Your task to perform on an android device: Clear the shopping cart on ebay.com. Add "lenovo thinkpad" to the cart on ebay.com Image 0: 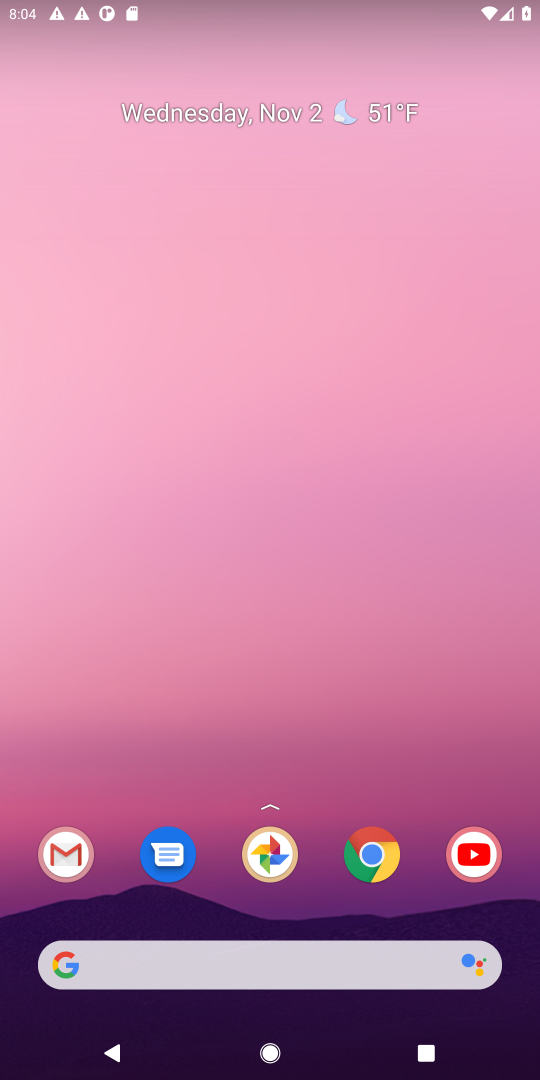
Step 0: click (365, 857)
Your task to perform on an android device: Clear the shopping cart on ebay.com. Add "lenovo thinkpad" to the cart on ebay.com Image 1: 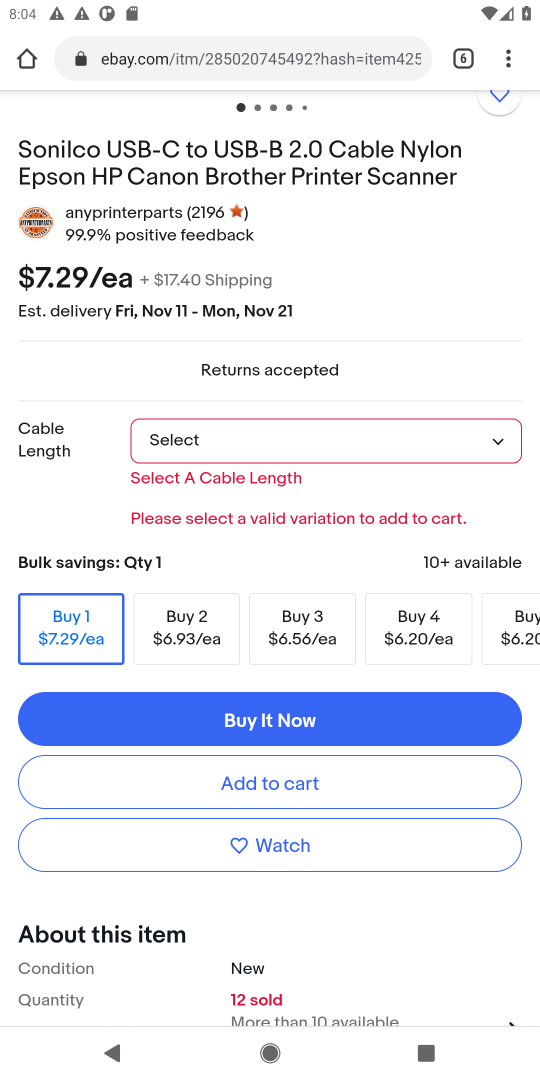
Step 1: drag from (442, 179) to (367, 671)
Your task to perform on an android device: Clear the shopping cart on ebay.com. Add "lenovo thinkpad" to the cart on ebay.com Image 2: 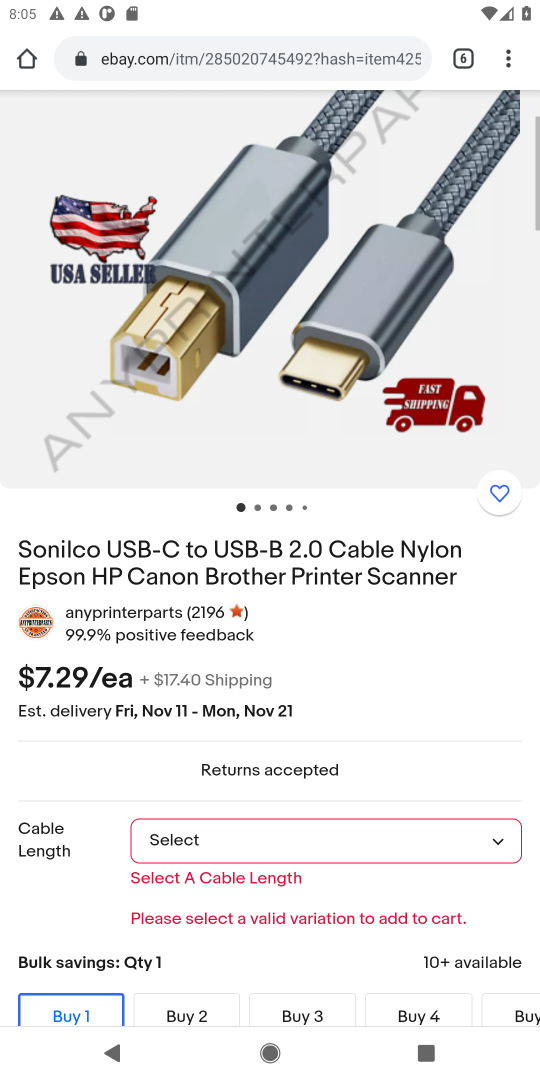
Step 2: drag from (375, 188) to (97, 1053)
Your task to perform on an android device: Clear the shopping cart on ebay.com. Add "lenovo thinkpad" to the cart on ebay.com Image 3: 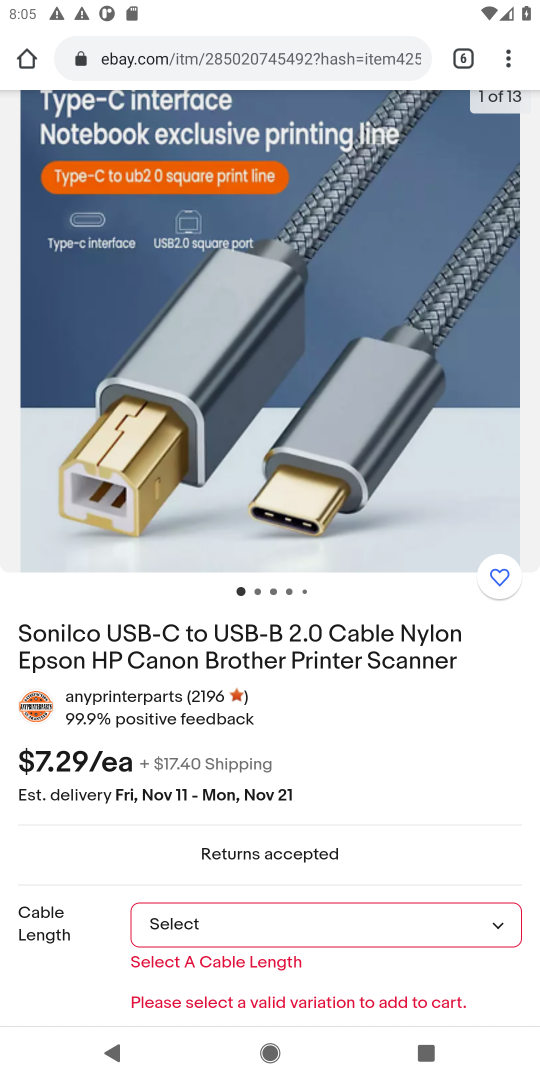
Step 3: drag from (159, 416) to (120, 882)
Your task to perform on an android device: Clear the shopping cart on ebay.com. Add "lenovo thinkpad" to the cart on ebay.com Image 4: 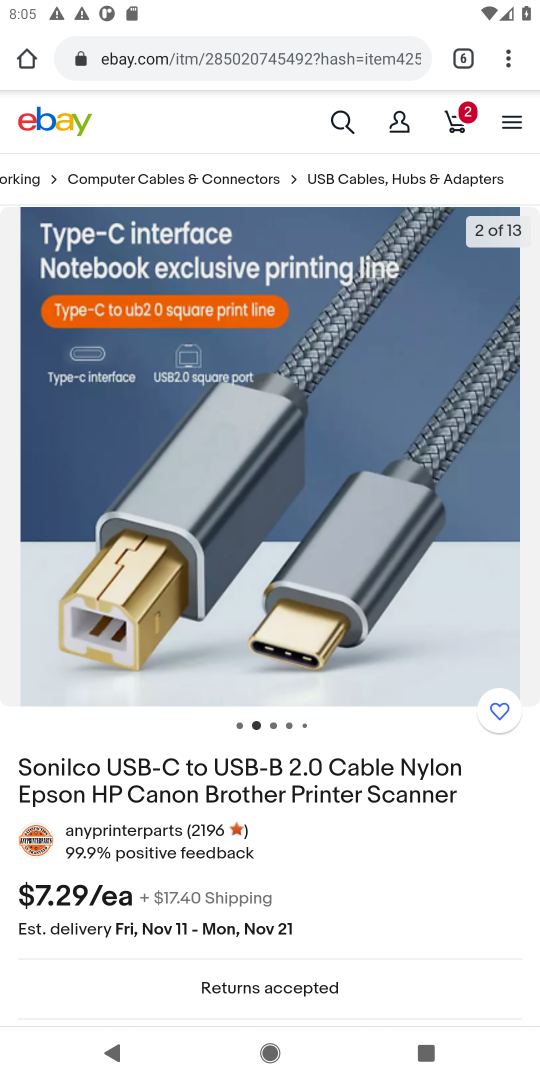
Step 4: click (339, 122)
Your task to perform on an android device: Clear the shopping cart on ebay.com. Add "lenovo thinkpad" to the cart on ebay.com Image 5: 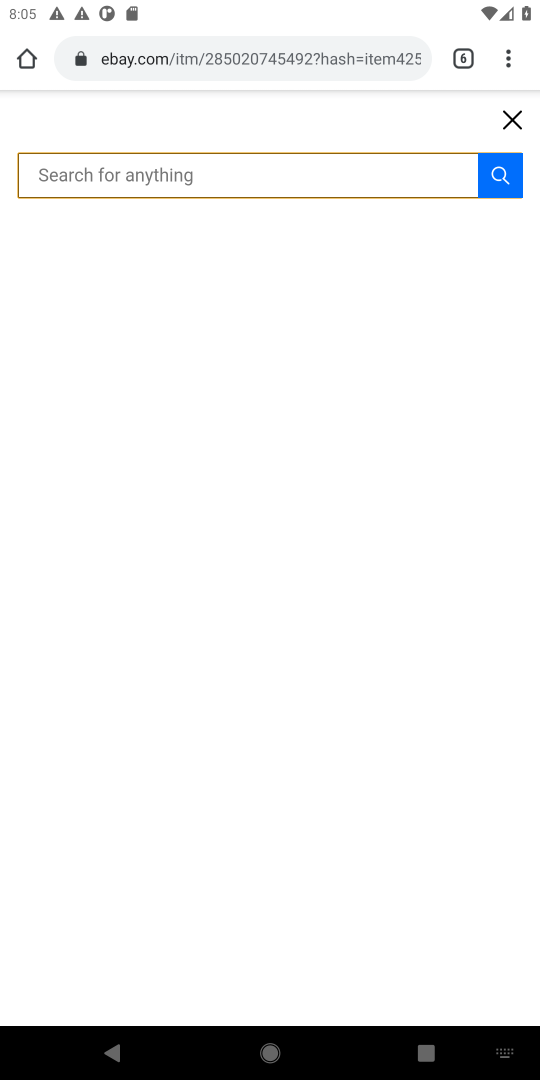
Step 5: type "lenovo thinkpad"
Your task to perform on an android device: Clear the shopping cart on ebay.com. Add "lenovo thinkpad" to the cart on ebay.com Image 6: 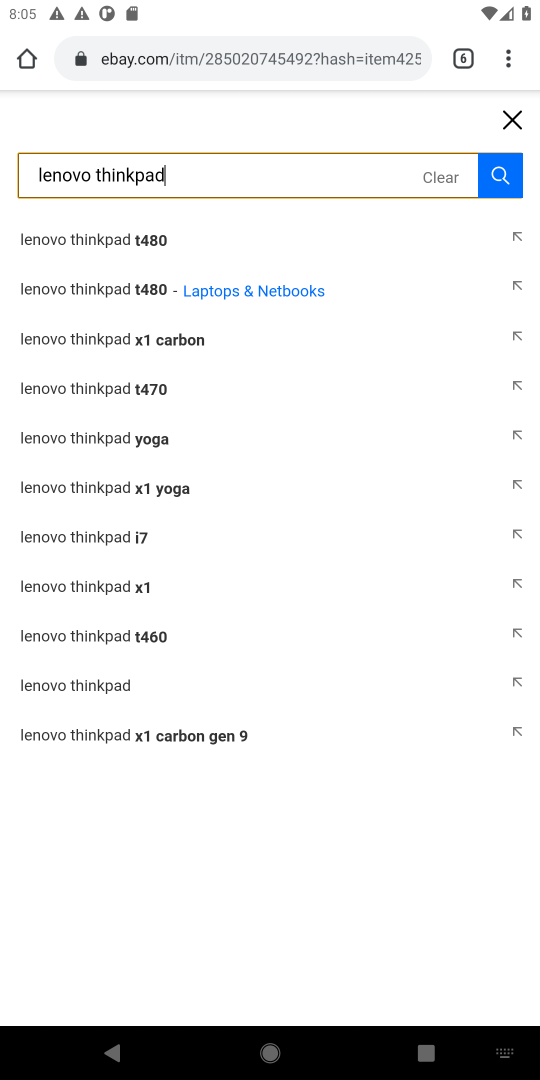
Step 6: click (143, 288)
Your task to perform on an android device: Clear the shopping cart on ebay.com. Add "lenovo thinkpad" to the cart on ebay.com Image 7: 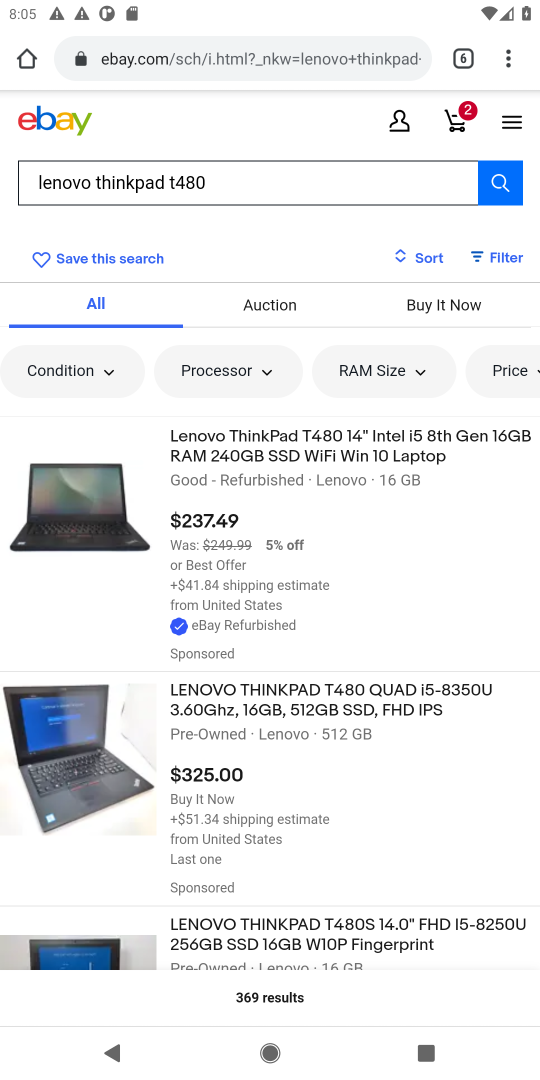
Step 7: click (335, 428)
Your task to perform on an android device: Clear the shopping cart on ebay.com. Add "lenovo thinkpad" to the cart on ebay.com Image 8: 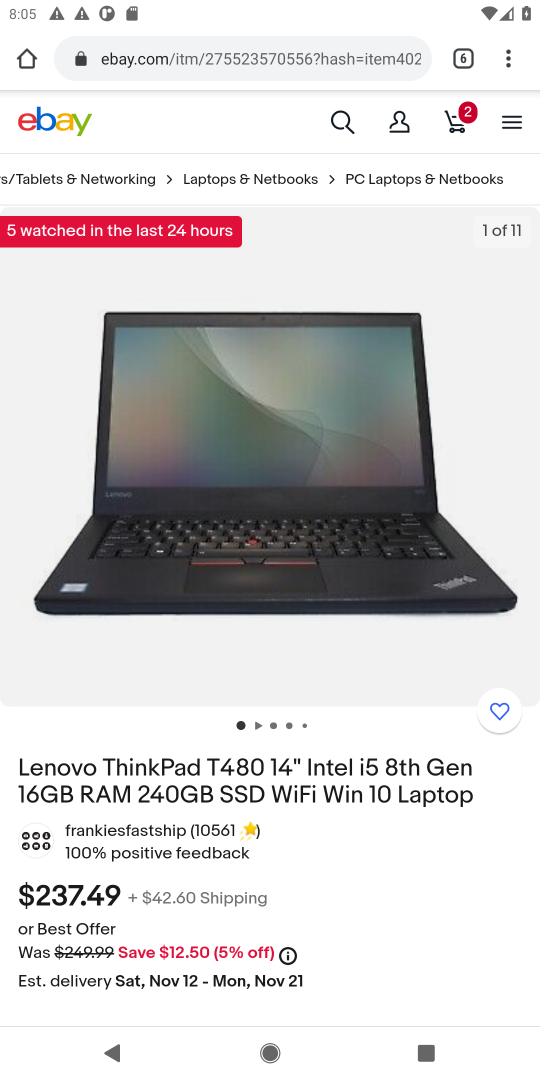
Step 8: drag from (350, 884) to (408, 284)
Your task to perform on an android device: Clear the shopping cart on ebay.com. Add "lenovo thinkpad" to the cart on ebay.com Image 9: 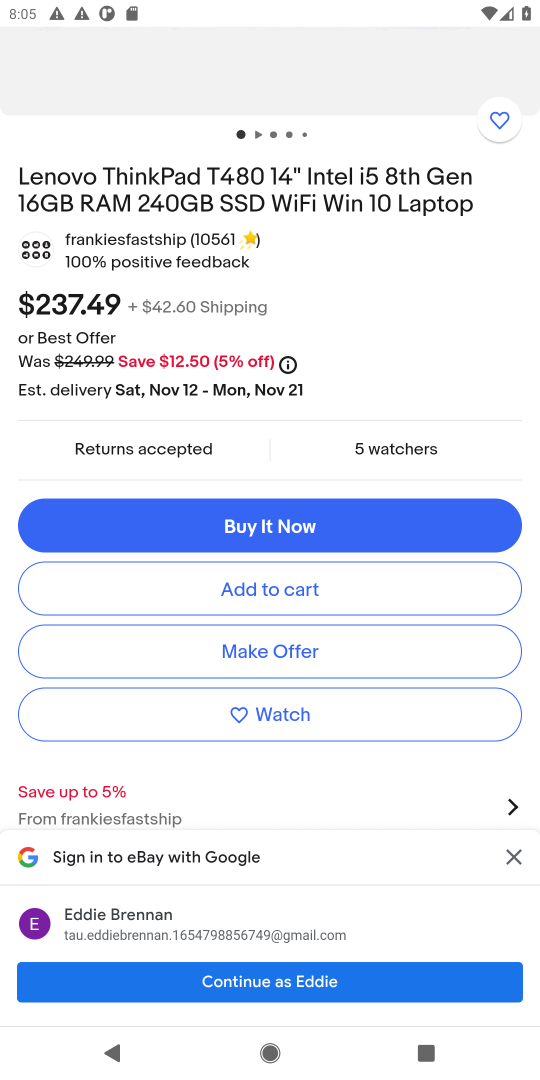
Step 9: click (333, 988)
Your task to perform on an android device: Clear the shopping cart on ebay.com. Add "lenovo thinkpad" to the cart on ebay.com Image 10: 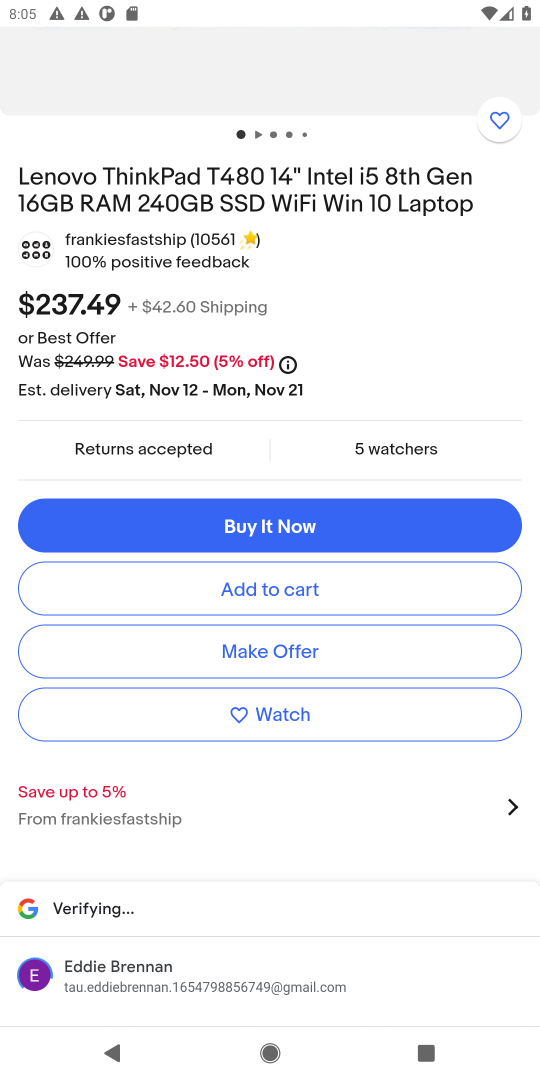
Step 10: click (291, 592)
Your task to perform on an android device: Clear the shopping cart on ebay.com. Add "lenovo thinkpad" to the cart on ebay.com Image 11: 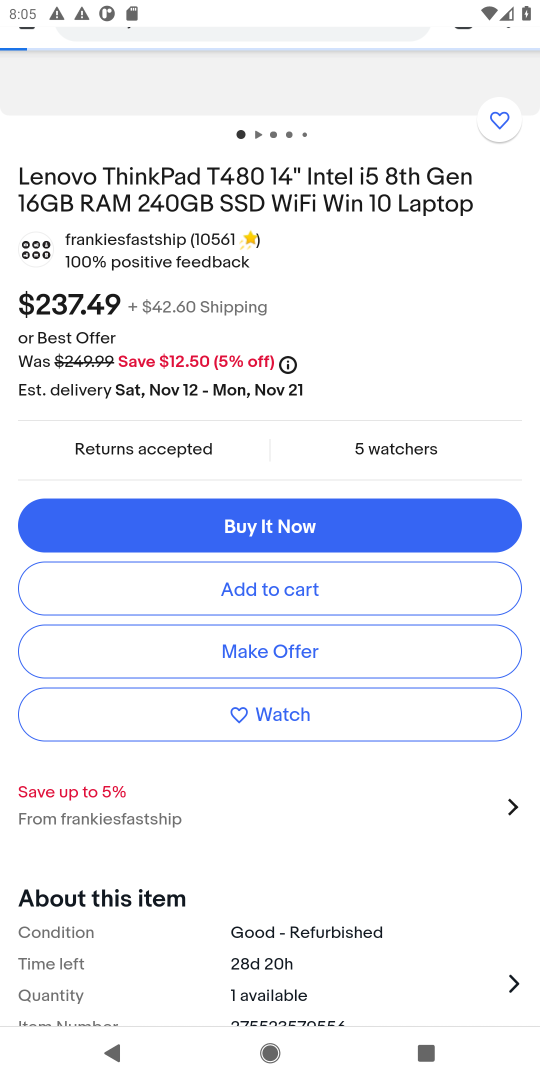
Step 11: click (239, 600)
Your task to perform on an android device: Clear the shopping cart on ebay.com. Add "lenovo thinkpad" to the cart on ebay.com Image 12: 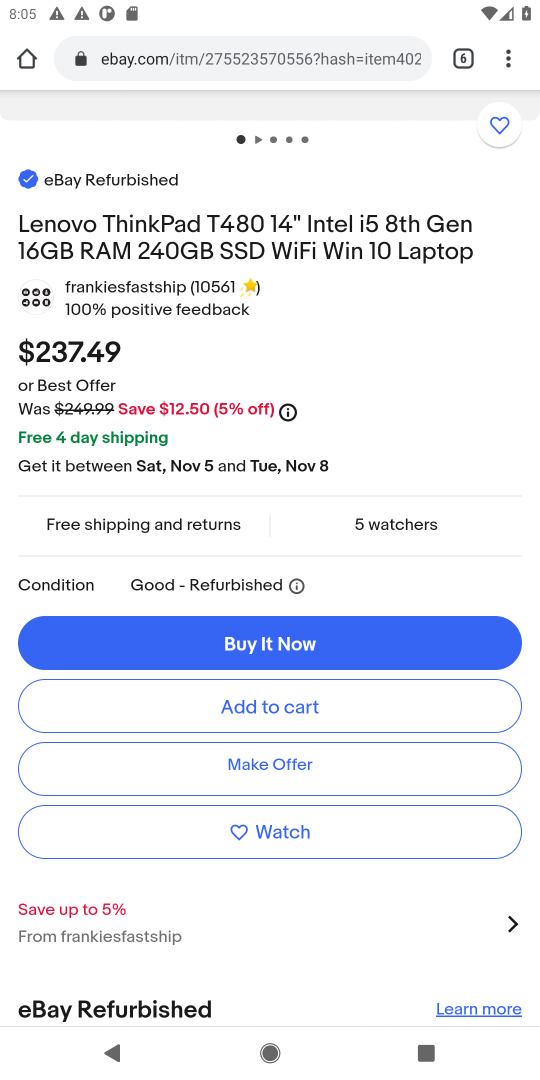
Step 12: click (310, 705)
Your task to perform on an android device: Clear the shopping cart on ebay.com. Add "lenovo thinkpad" to the cart on ebay.com Image 13: 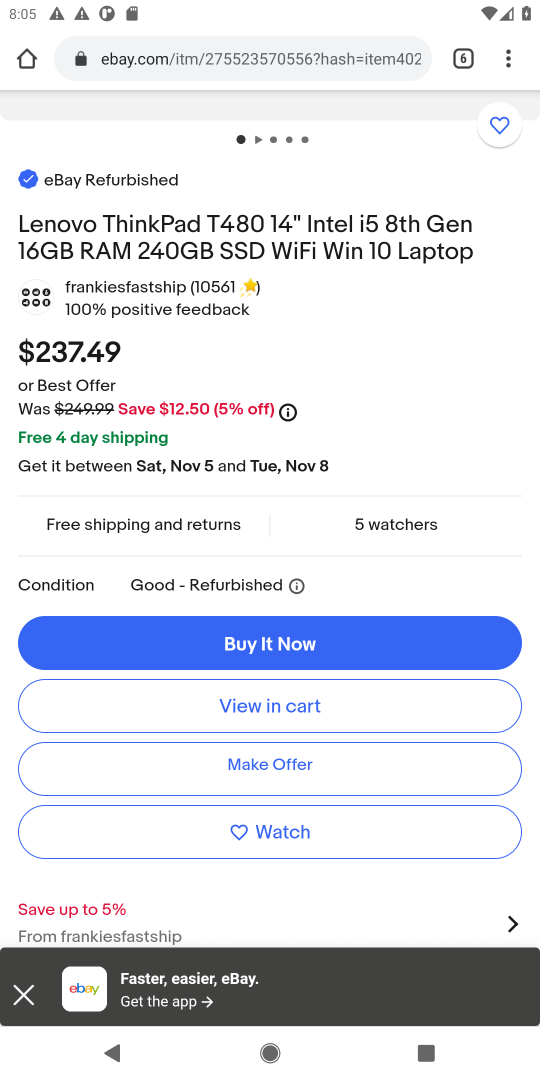
Step 13: task complete